Your task to perform on an android device: Open display settings Image 0: 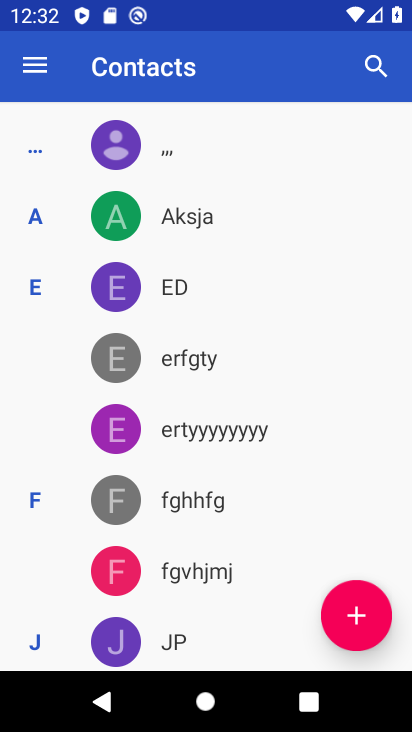
Step 0: press home button
Your task to perform on an android device: Open display settings Image 1: 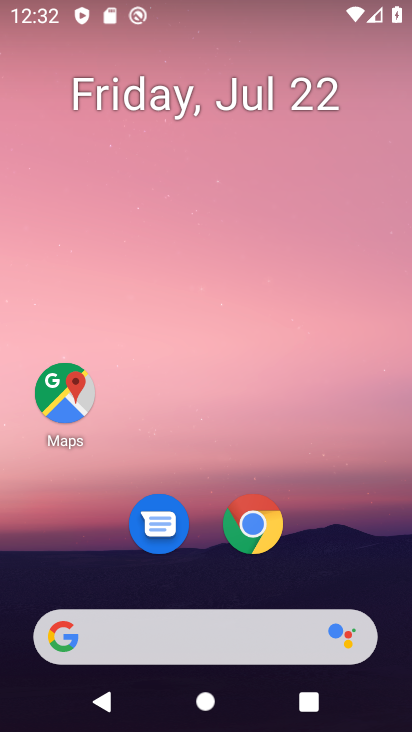
Step 1: drag from (206, 637) to (367, 41)
Your task to perform on an android device: Open display settings Image 2: 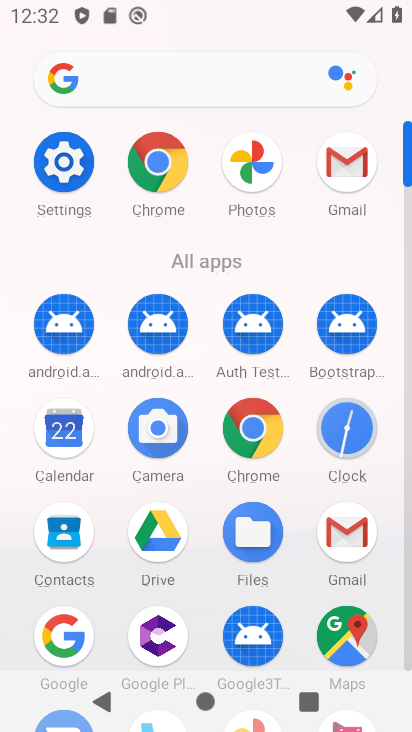
Step 2: click (65, 170)
Your task to perform on an android device: Open display settings Image 3: 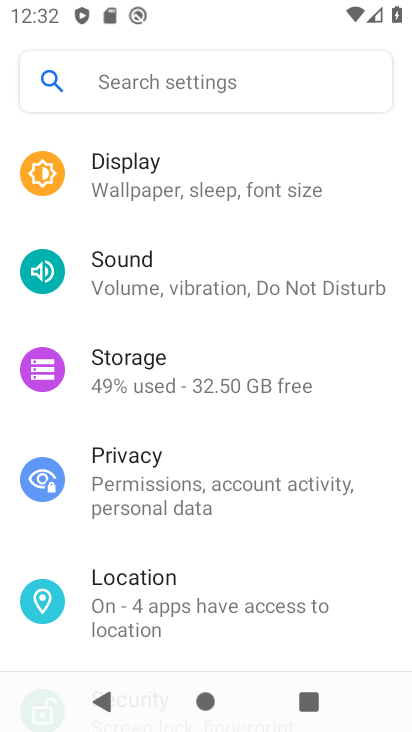
Step 3: drag from (219, 598) to (224, 549)
Your task to perform on an android device: Open display settings Image 4: 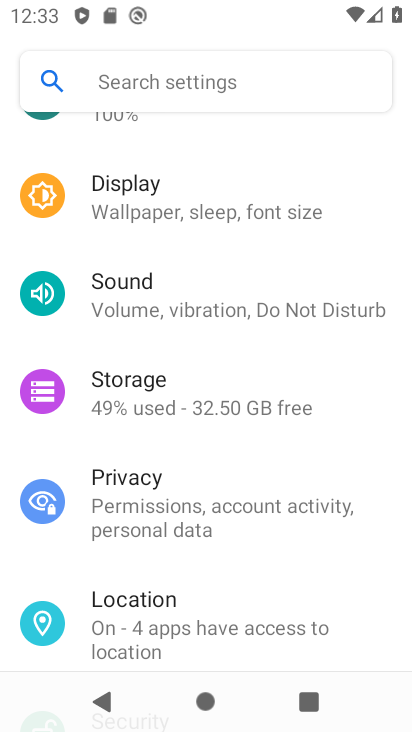
Step 4: click (139, 202)
Your task to perform on an android device: Open display settings Image 5: 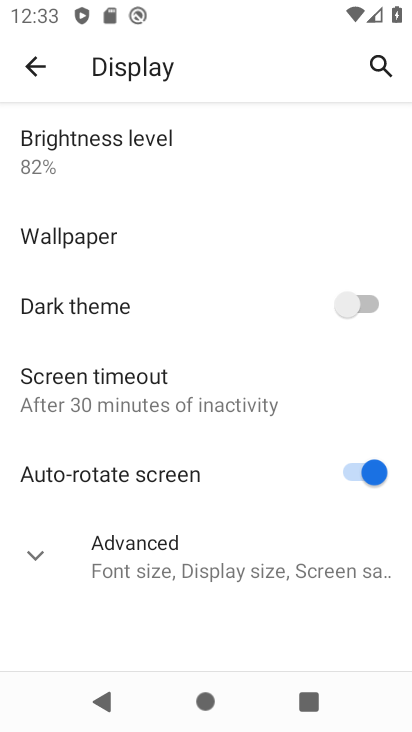
Step 5: task complete